Your task to perform on an android device: Open Google Maps and go to "Timeline" Image 0: 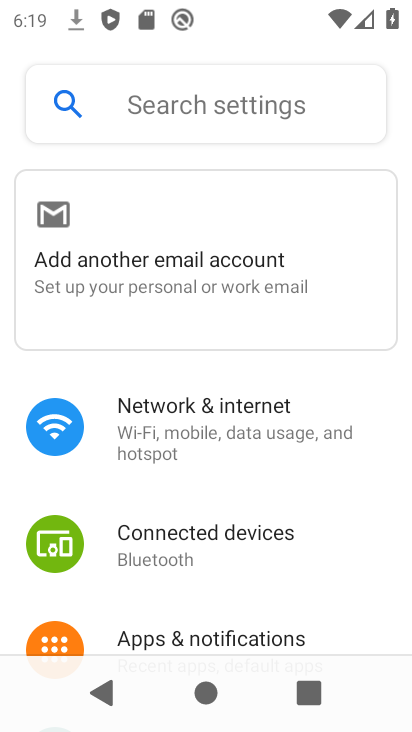
Step 0: press home button
Your task to perform on an android device: Open Google Maps and go to "Timeline" Image 1: 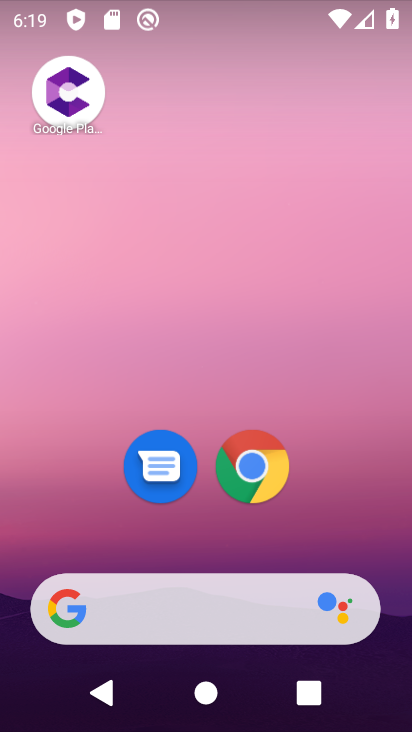
Step 1: drag from (182, 569) to (211, 132)
Your task to perform on an android device: Open Google Maps and go to "Timeline" Image 2: 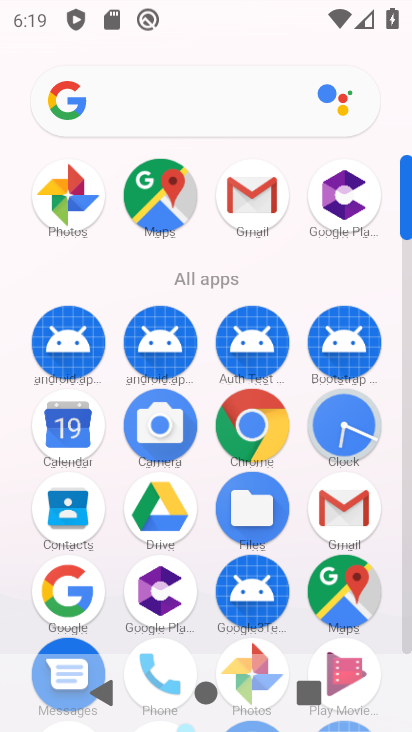
Step 2: click (339, 588)
Your task to perform on an android device: Open Google Maps and go to "Timeline" Image 3: 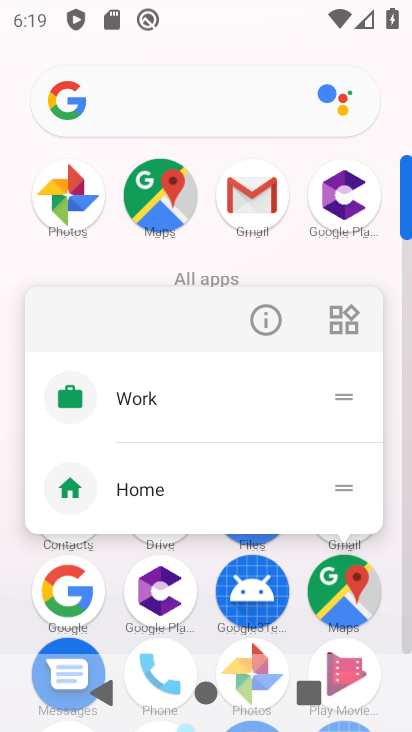
Step 3: click (339, 588)
Your task to perform on an android device: Open Google Maps and go to "Timeline" Image 4: 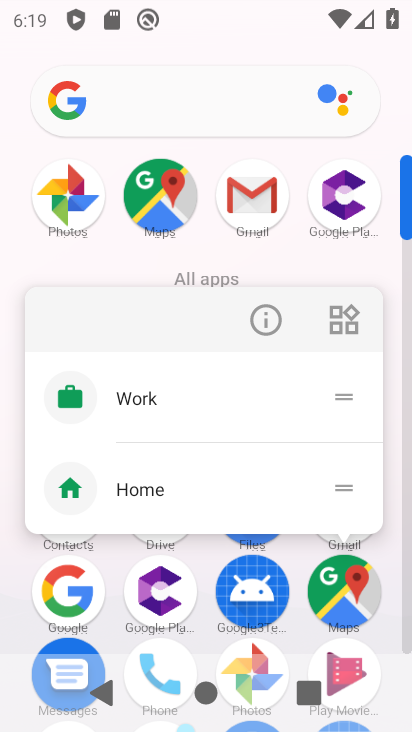
Step 4: click (349, 595)
Your task to perform on an android device: Open Google Maps and go to "Timeline" Image 5: 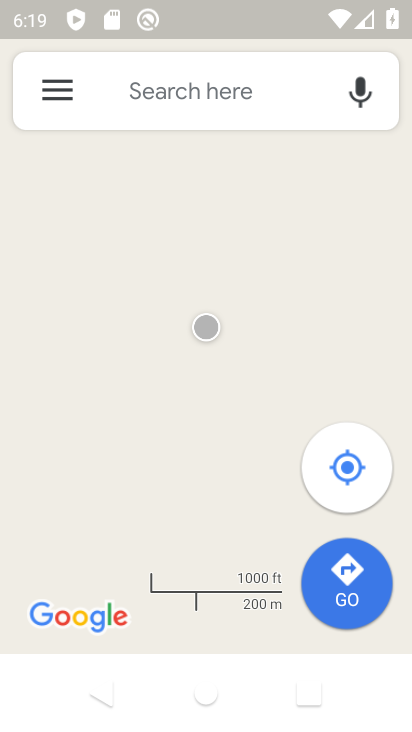
Step 5: task complete